Your task to perform on an android device: Go to CNN.com Image 0: 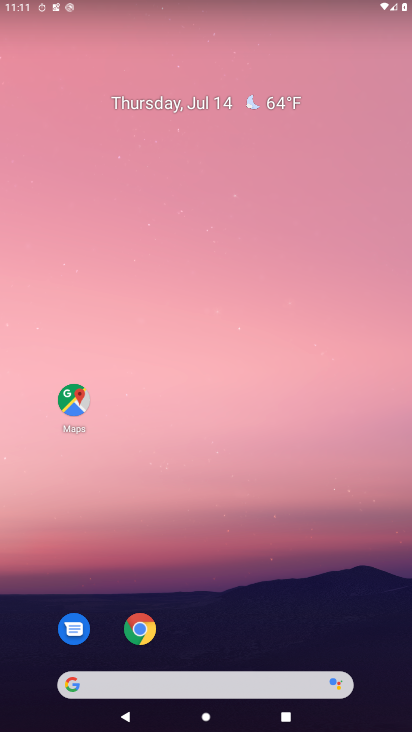
Step 0: drag from (192, 667) to (128, 212)
Your task to perform on an android device: Go to CNN.com Image 1: 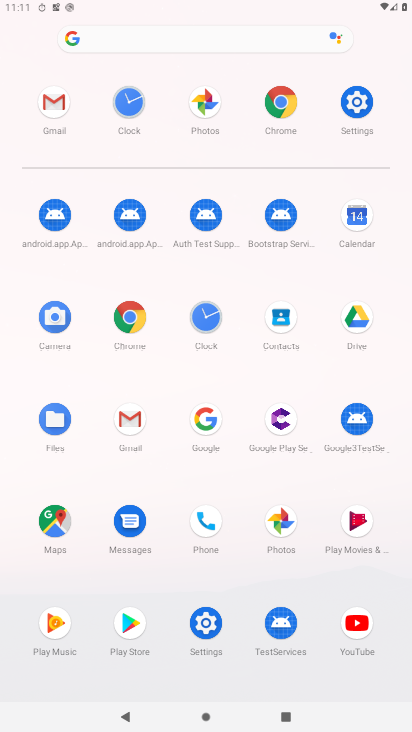
Step 1: click (202, 410)
Your task to perform on an android device: Go to CNN.com Image 2: 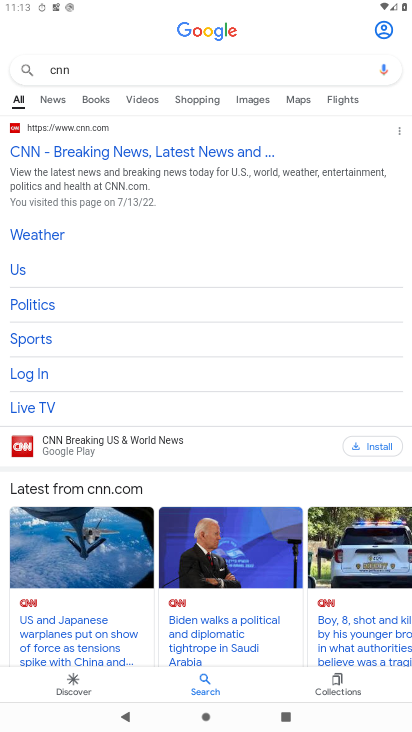
Step 2: task complete